Your task to perform on an android device: toggle priority inbox in the gmail app Image 0: 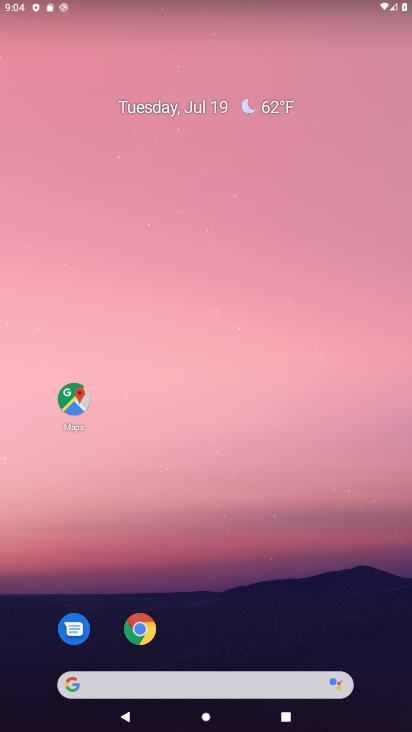
Step 0: press home button
Your task to perform on an android device: toggle priority inbox in the gmail app Image 1: 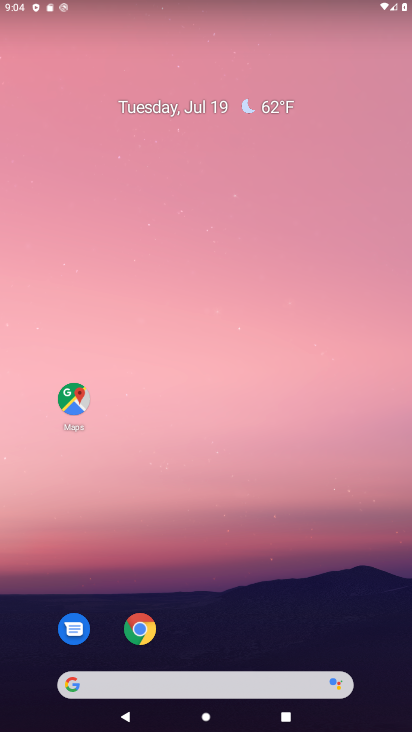
Step 1: drag from (210, 654) to (265, 70)
Your task to perform on an android device: toggle priority inbox in the gmail app Image 2: 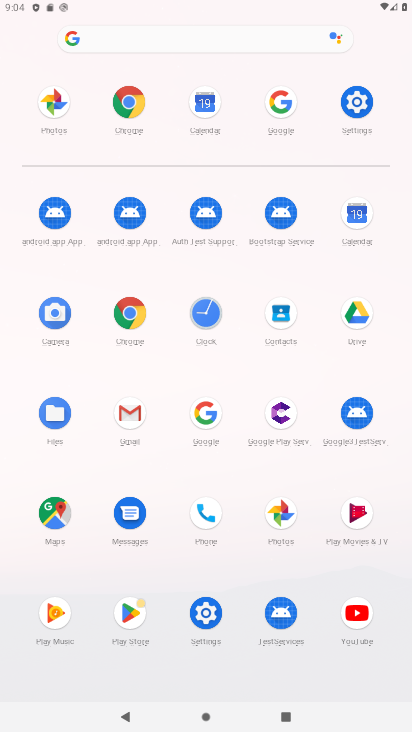
Step 2: click (127, 407)
Your task to perform on an android device: toggle priority inbox in the gmail app Image 3: 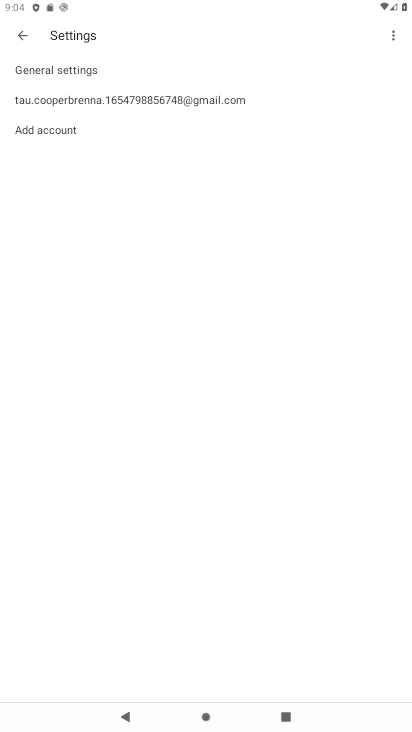
Step 3: click (139, 97)
Your task to perform on an android device: toggle priority inbox in the gmail app Image 4: 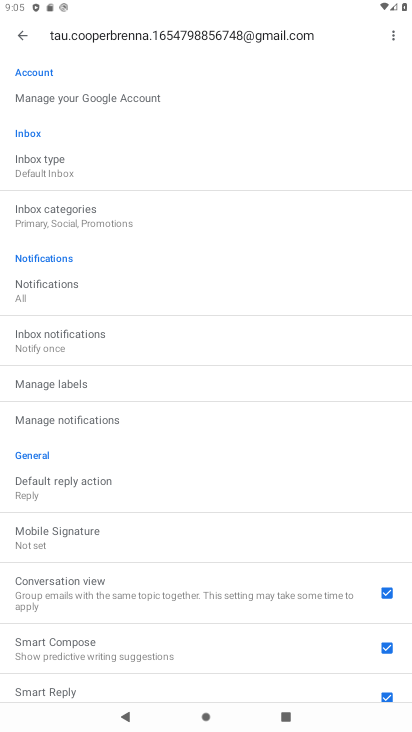
Step 4: click (87, 165)
Your task to perform on an android device: toggle priority inbox in the gmail app Image 5: 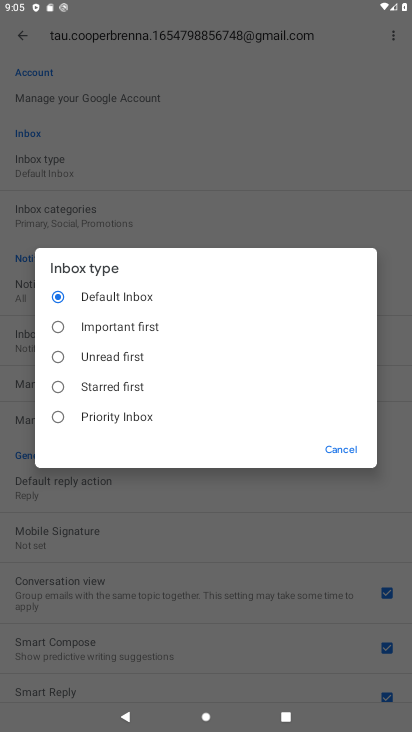
Step 5: click (52, 414)
Your task to perform on an android device: toggle priority inbox in the gmail app Image 6: 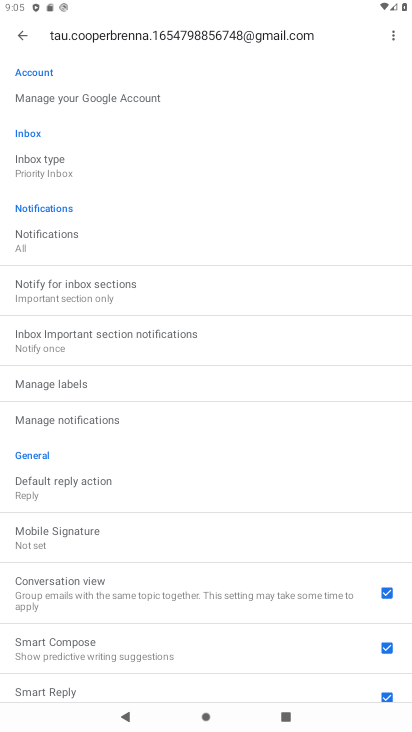
Step 6: task complete